Your task to perform on an android device: Go to Maps Image 0: 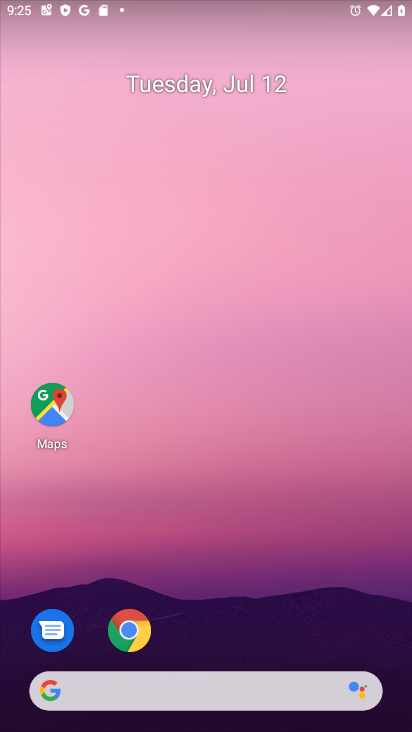
Step 0: click (51, 410)
Your task to perform on an android device: Go to Maps Image 1: 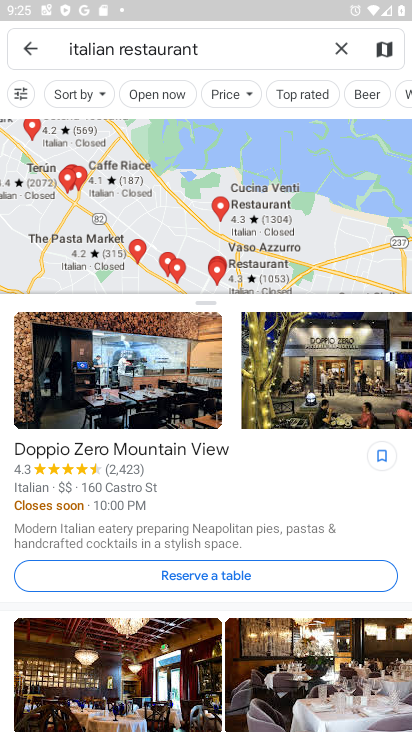
Step 1: task complete